Your task to perform on an android device: add a label to a message in the gmail app Image 0: 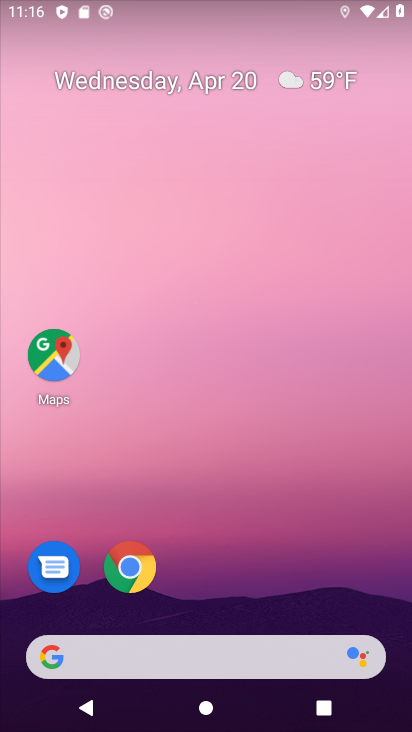
Step 0: drag from (291, 603) to (358, 76)
Your task to perform on an android device: add a label to a message in the gmail app Image 1: 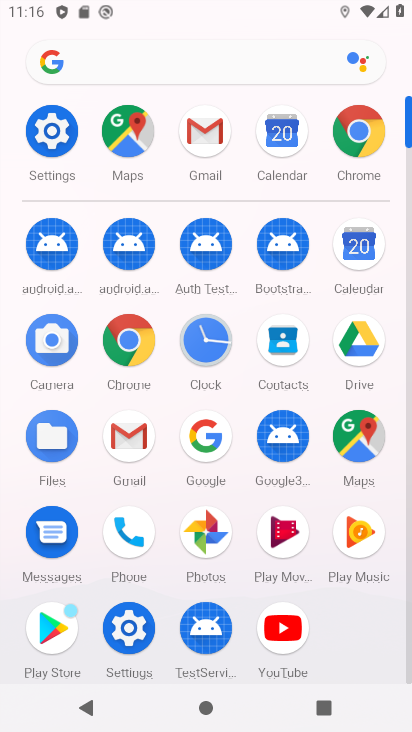
Step 1: click (136, 434)
Your task to perform on an android device: add a label to a message in the gmail app Image 2: 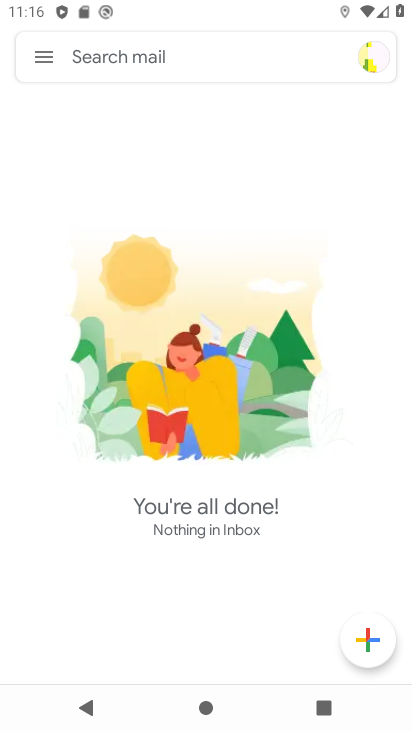
Step 2: click (34, 63)
Your task to perform on an android device: add a label to a message in the gmail app Image 3: 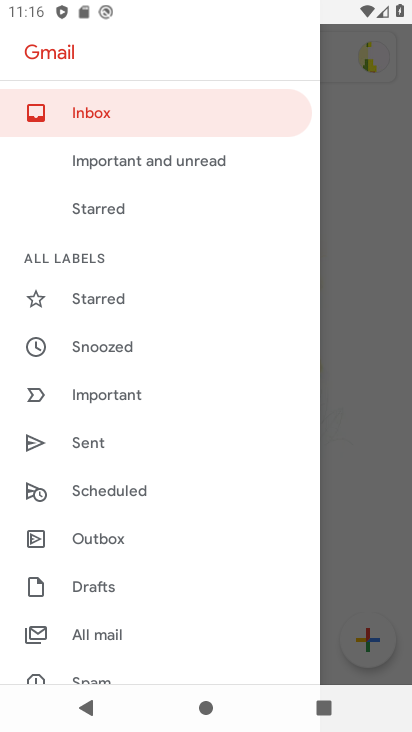
Step 3: click (88, 635)
Your task to perform on an android device: add a label to a message in the gmail app Image 4: 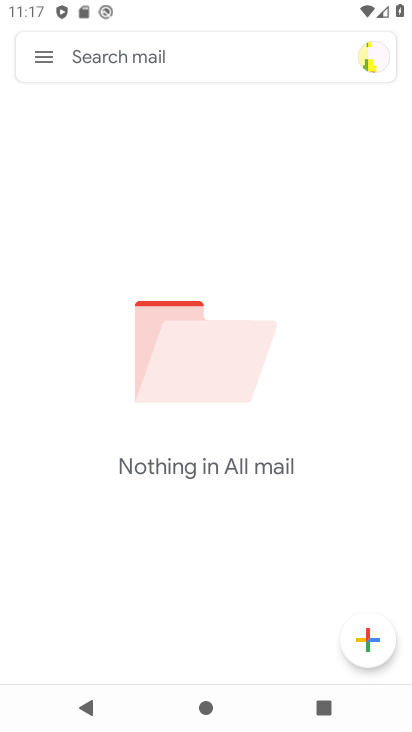
Step 4: task complete